Your task to perform on an android device: change your default location settings in chrome Image 0: 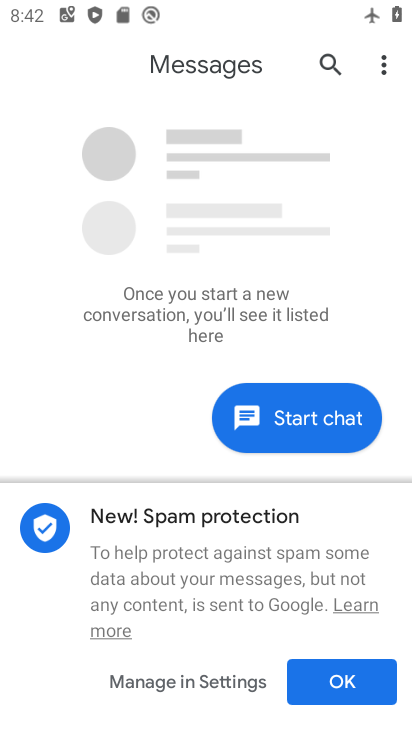
Step 0: press home button
Your task to perform on an android device: change your default location settings in chrome Image 1: 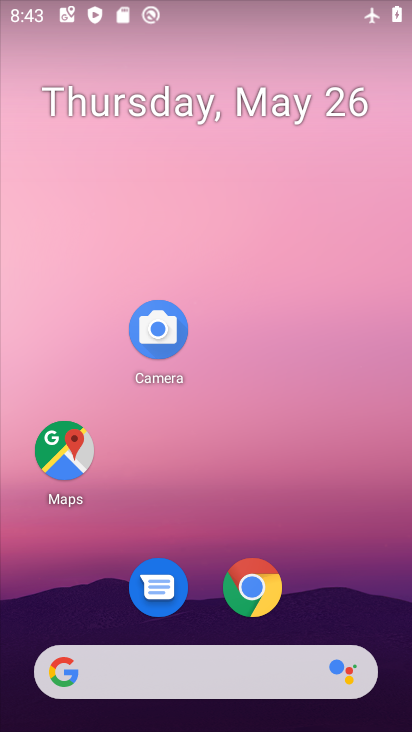
Step 1: press home button
Your task to perform on an android device: change your default location settings in chrome Image 2: 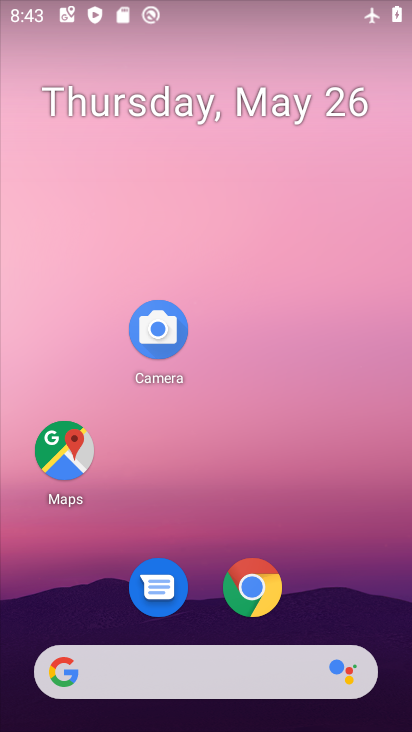
Step 2: click (242, 588)
Your task to perform on an android device: change your default location settings in chrome Image 3: 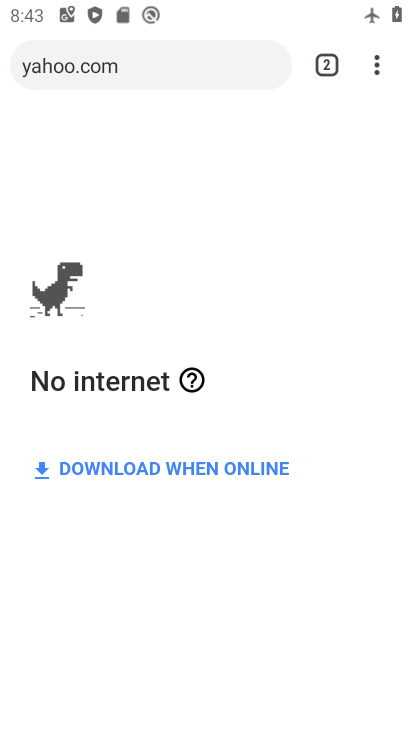
Step 3: drag from (377, 56) to (172, 631)
Your task to perform on an android device: change your default location settings in chrome Image 4: 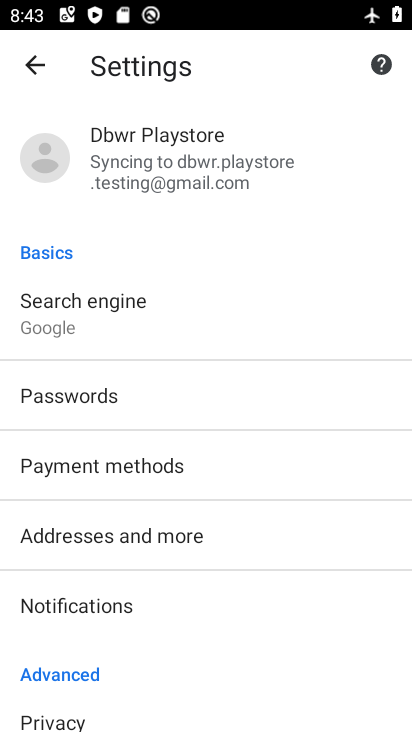
Step 4: drag from (182, 612) to (218, 364)
Your task to perform on an android device: change your default location settings in chrome Image 5: 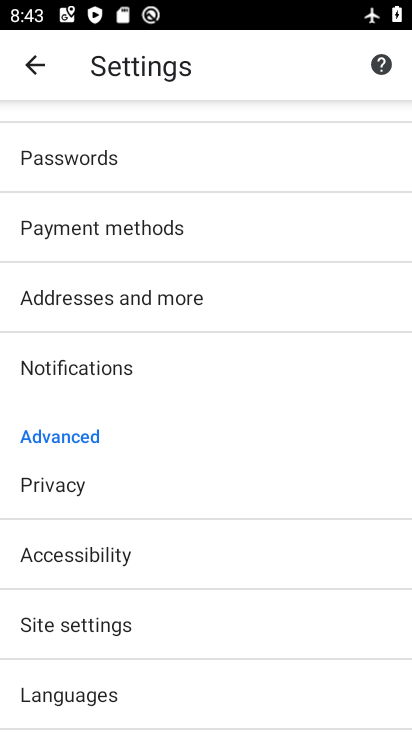
Step 5: click (154, 621)
Your task to perform on an android device: change your default location settings in chrome Image 6: 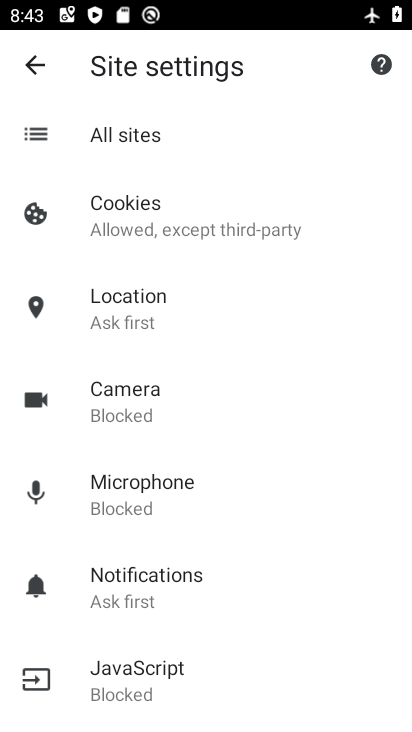
Step 6: click (212, 317)
Your task to perform on an android device: change your default location settings in chrome Image 7: 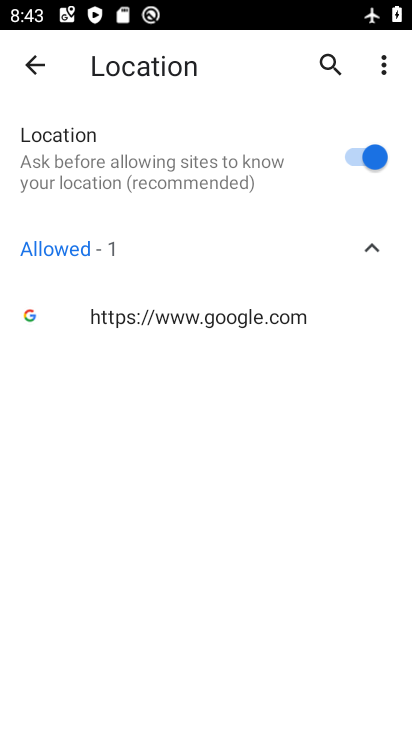
Step 7: click (353, 155)
Your task to perform on an android device: change your default location settings in chrome Image 8: 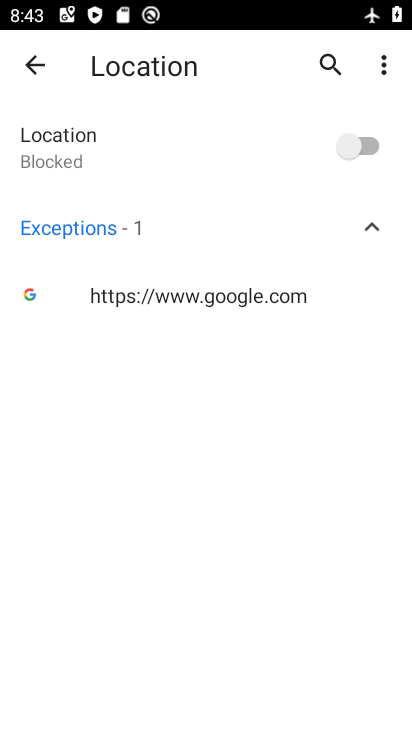
Step 8: task complete